Your task to perform on an android device: turn on wifi Image 0: 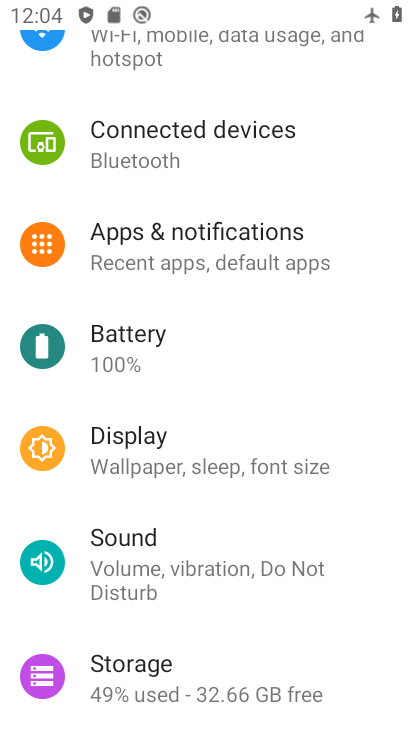
Step 0: press home button
Your task to perform on an android device: turn on wifi Image 1: 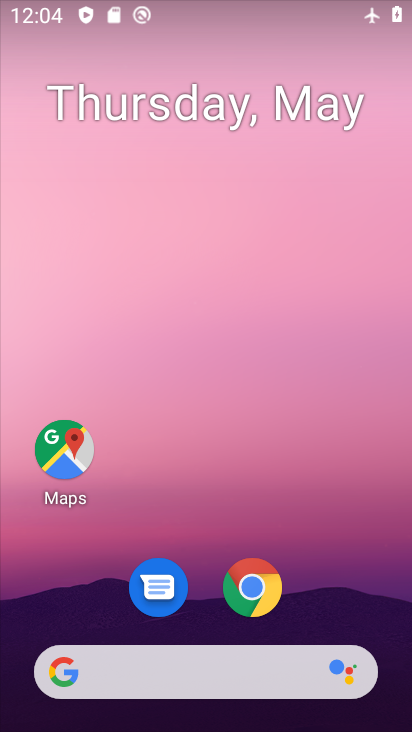
Step 1: drag from (226, 612) to (239, 52)
Your task to perform on an android device: turn on wifi Image 2: 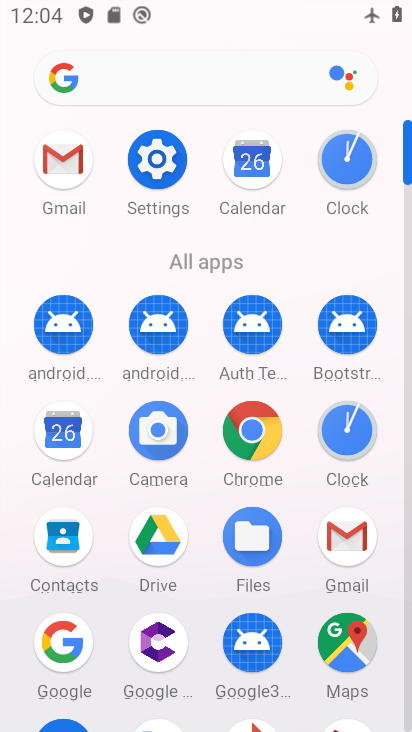
Step 2: click (170, 174)
Your task to perform on an android device: turn on wifi Image 3: 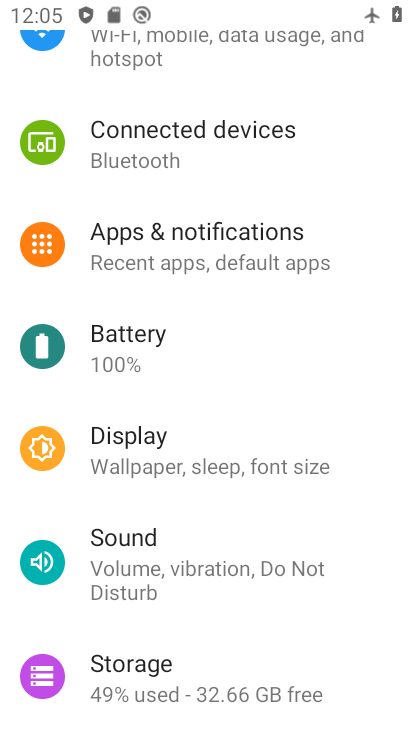
Step 3: drag from (300, 152) to (322, 711)
Your task to perform on an android device: turn on wifi Image 4: 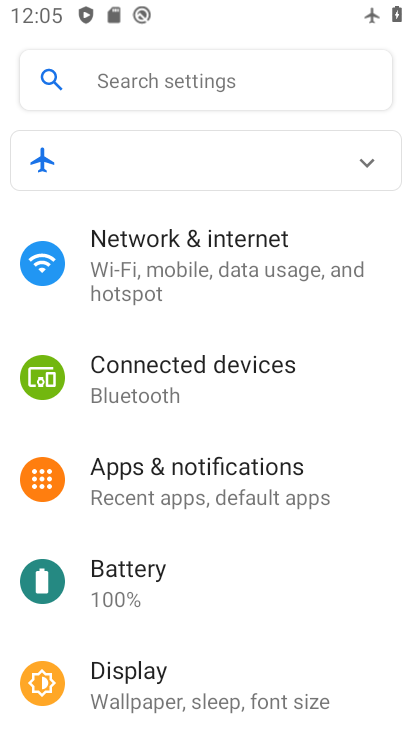
Step 4: click (236, 270)
Your task to perform on an android device: turn on wifi Image 5: 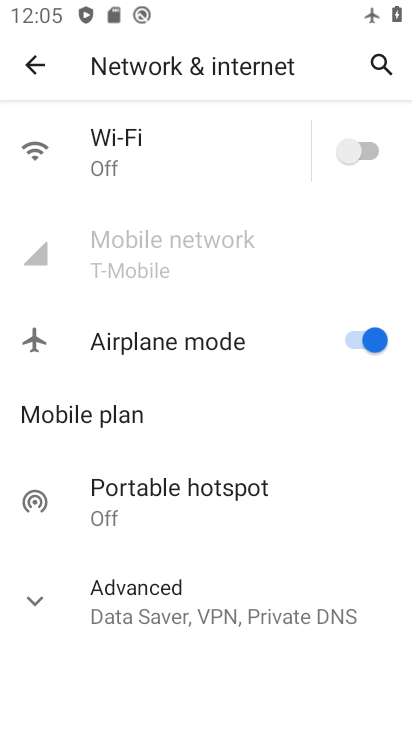
Step 5: click (365, 152)
Your task to perform on an android device: turn on wifi Image 6: 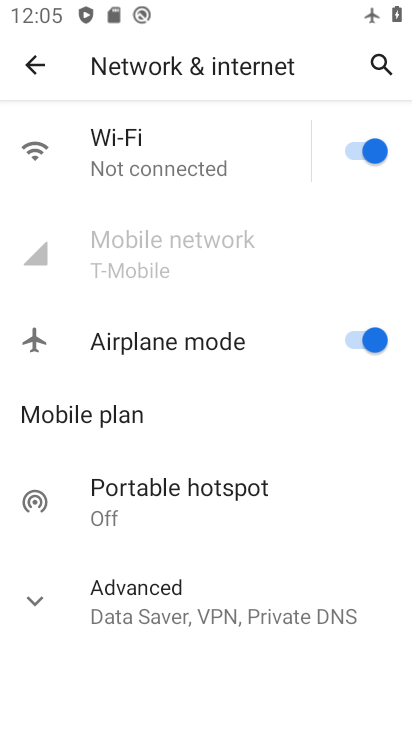
Step 6: task complete